Your task to perform on an android device: Show me some nice wallpapers for my desktop Image 0: 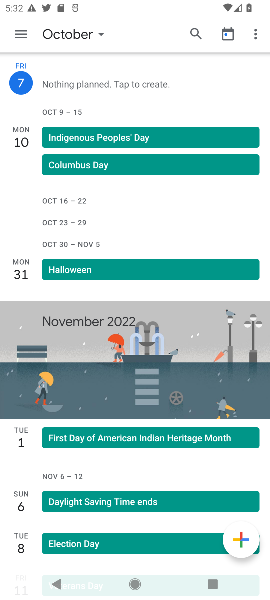
Step 0: press home button
Your task to perform on an android device: Show me some nice wallpapers for my desktop Image 1: 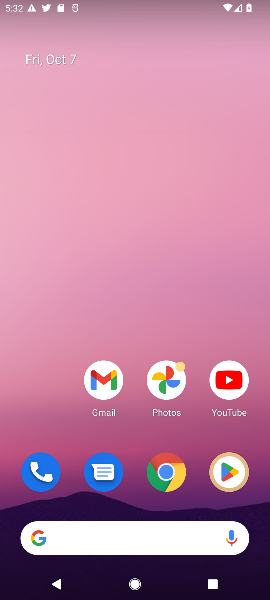
Step 1: click (176, 478)
Your task to perform on an android device: Show me some nice wallpapers for my desktop Image 2: 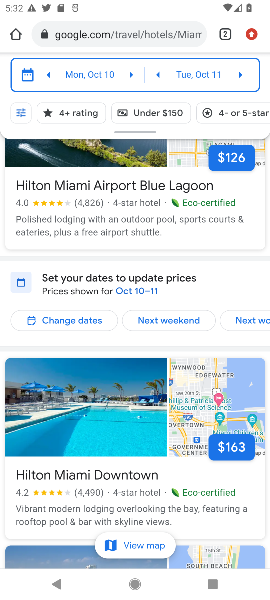
Step 2: click (159, 36)
Your task to perform on an android device: Show me some nice wallpapers for my desktop Image 3: 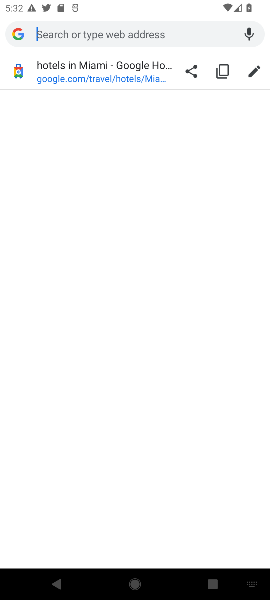
Step 3: type "some nice wallpapers for my desktop"
Your task to perform on an android device: Show me some nice wallpapers for my desktop Image 4: 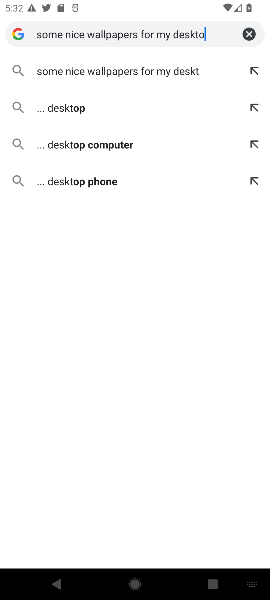
Step 4: press enter
Your task to perform on an android device: Show me some nice wallpapers for my desktop Image 5: 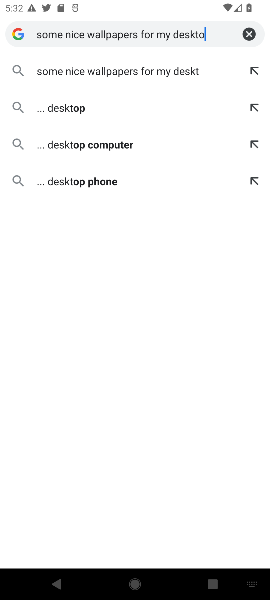
Step 5: type ""
Your task to perform on an android device: Show me some nice wallpapers for my desktop Image 6: 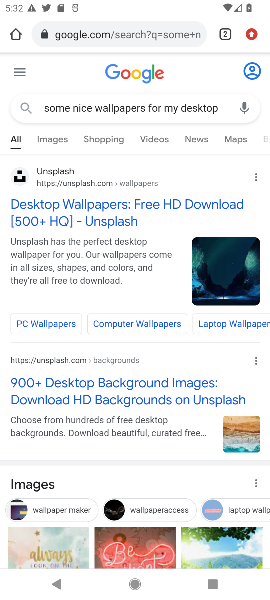
Step 6: drag from (138, 454) to (132, 244)
Your task to perform on an android device: Show me some nice wallpapers for my desktop Image 7: 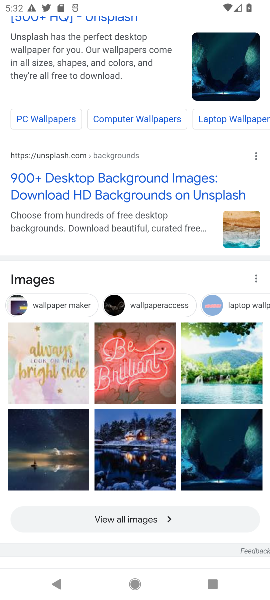
Step 7: click (129, 520)
Your task to perform on an android device: Show me some nice wallpapers for my desktop Image 8: 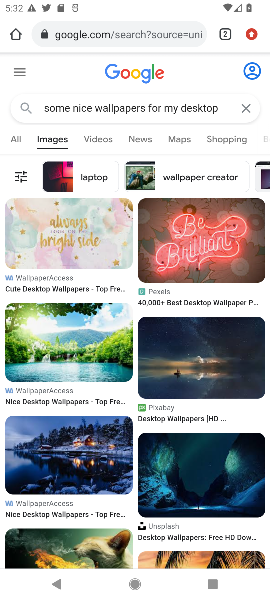
Step 8: task complete